Your task to perform on an android device: turn on bluetooth scan Image 0: 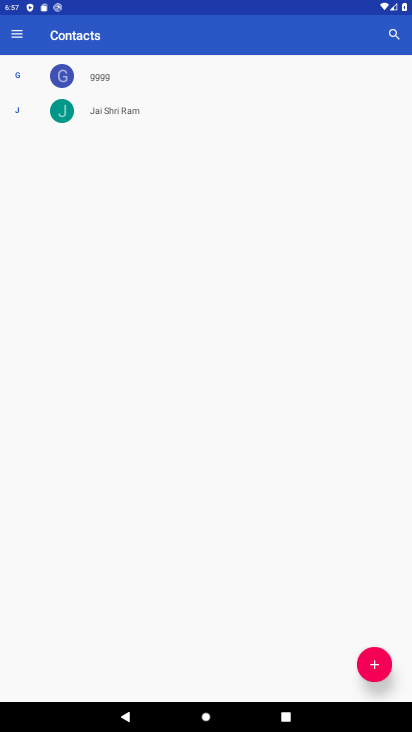
Step 0: press home button
Your task to perform on an android device: turn on bluetooth scan Image 1: 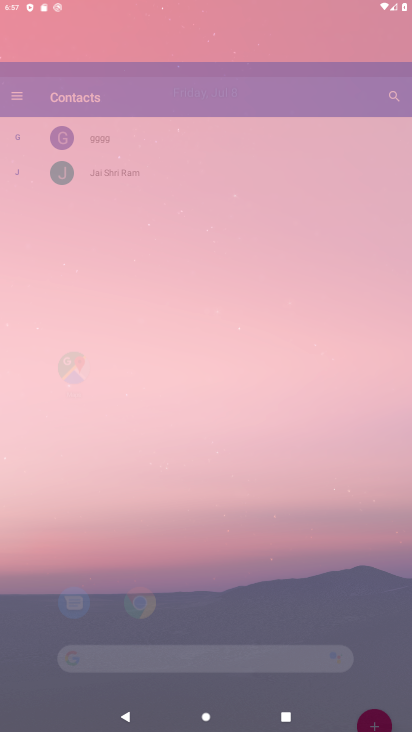
Step 1: drag from (202, 672) to (219, 1)
Your task to perform on an android device: turn on bluetooth scan Image 2: 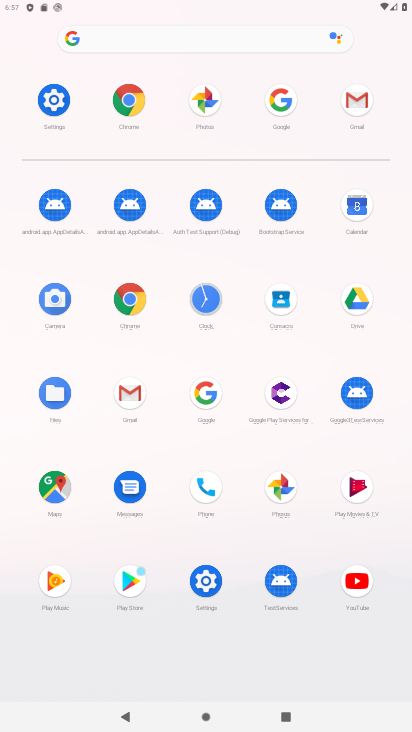
Step 2: click (67, 114)
Your task to perform on an android device: turn on bluetooth scan Image 3: 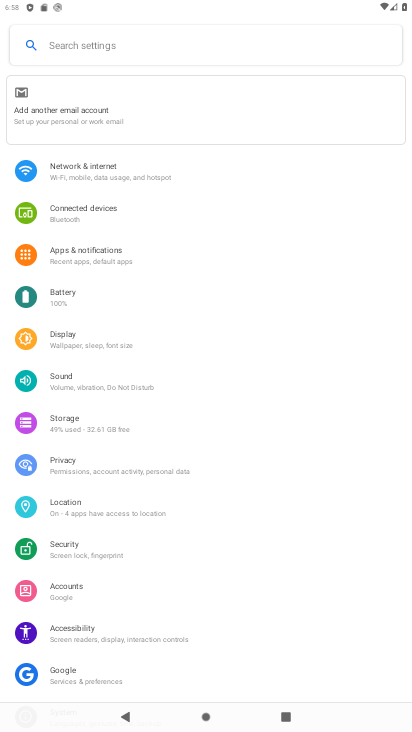
Step 3: click (118, 170)
Your task to perform on an android device: turn on bluetooth scan Image 4: 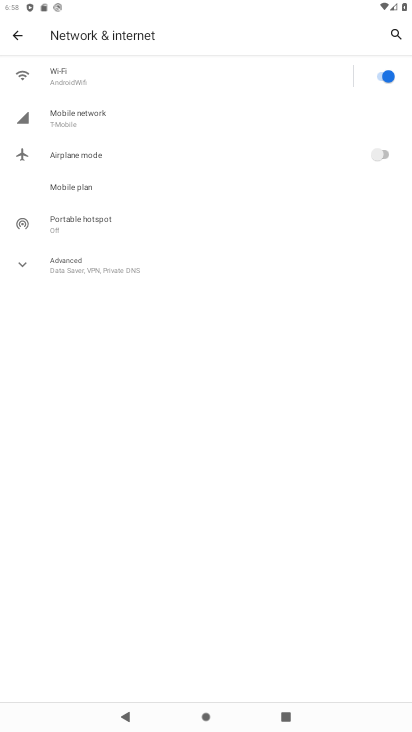
Step 4: click (92, 276)
Your task to perform on an android device: turn on bluetooth scan Image 5: 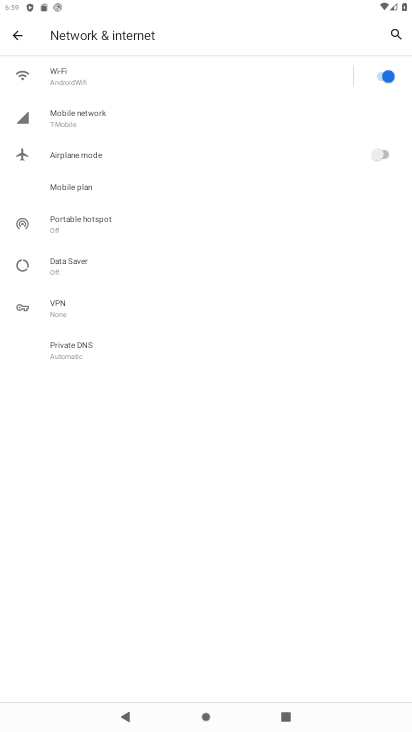
Step 5: click (16, 49)
Your task to perform on an android device: turn on bluetooth scan Image 6: 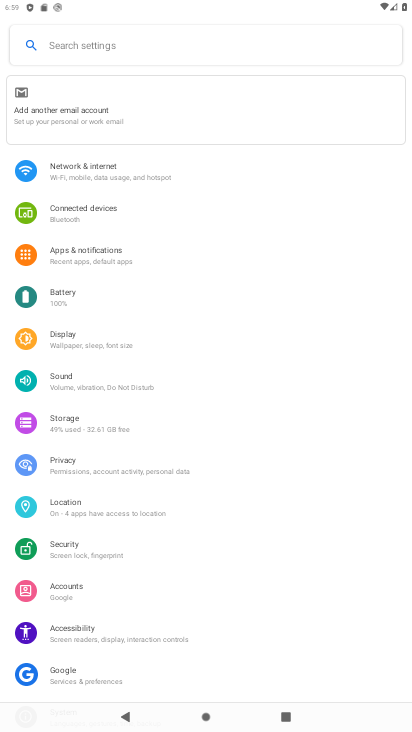
Step 6: click (21, 519)
Your task to perform on an android device: turn on bluetooth scan Image 7: 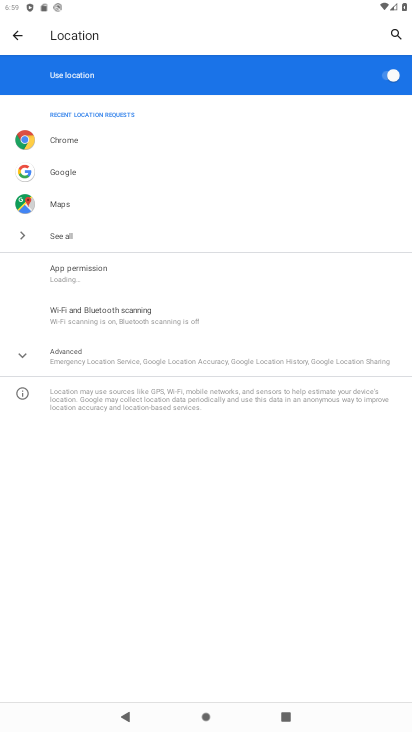
Step 7: click (101, 306)
Your task to perform on an android device: turn on bluetooth scan Image 8: 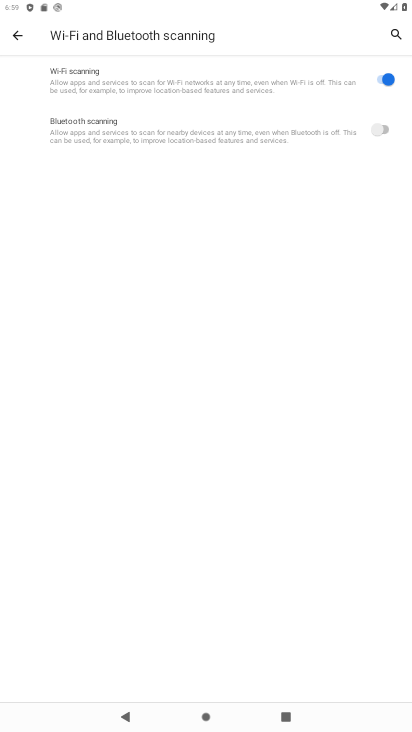
Step 8: click (98, 142)
Your task to perform on an android device: turn on bluetooth scan Image 9: 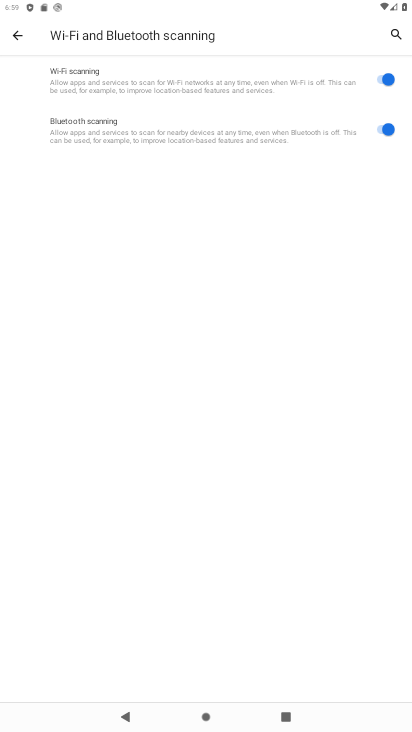
Step 9: task complete